Your task to perform on an android device: toggle show notifications on the lock screen Image 0: 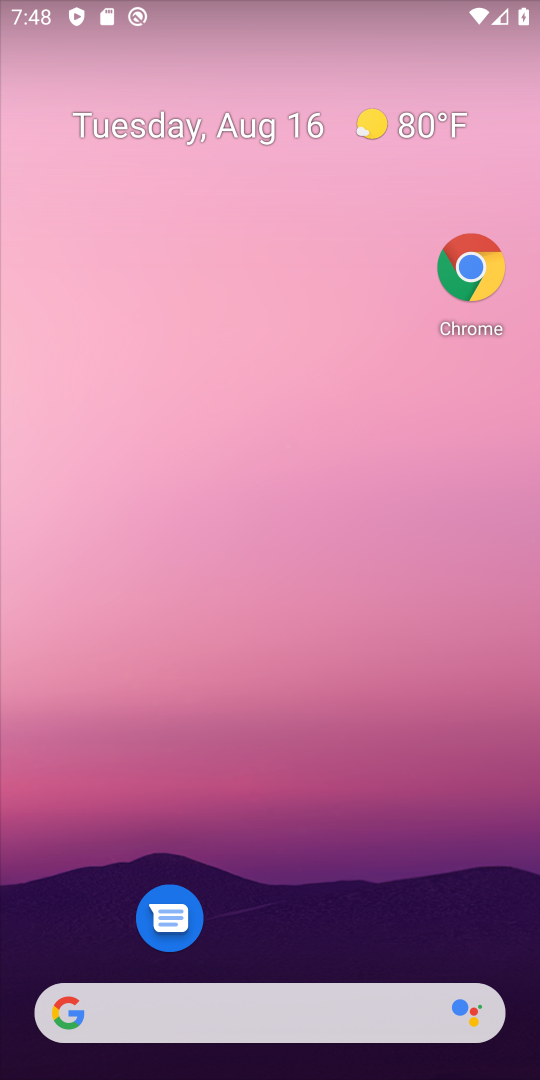
Step 0: drag from (334, 914) to (357, 125)
Your task to perform on an android device: toggle show notifications on the lock screen Image 1: 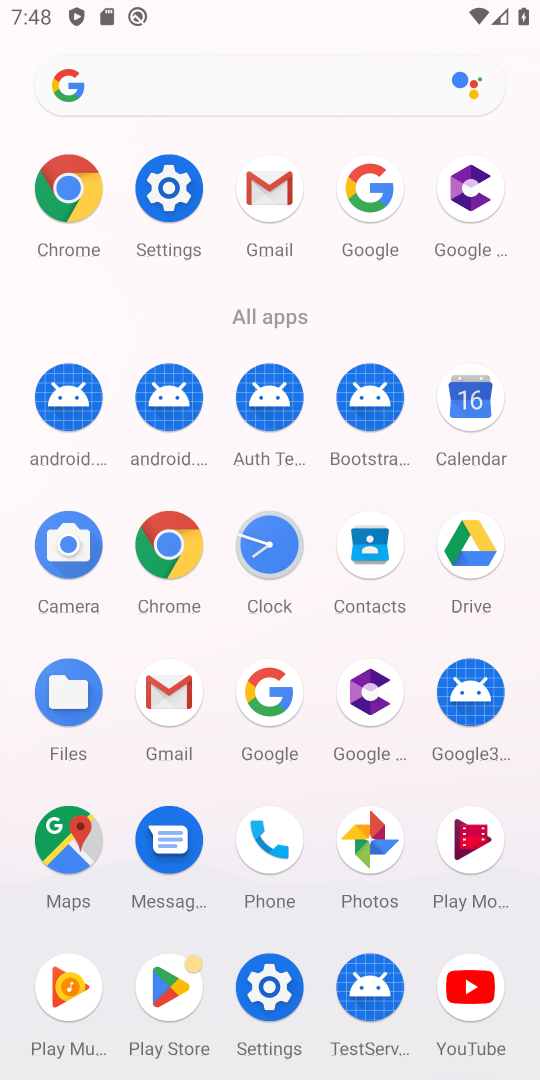
Step 1: click (169, 220)
Your task to perform on an android device: toggle show notifications on the lock screen Image 2: 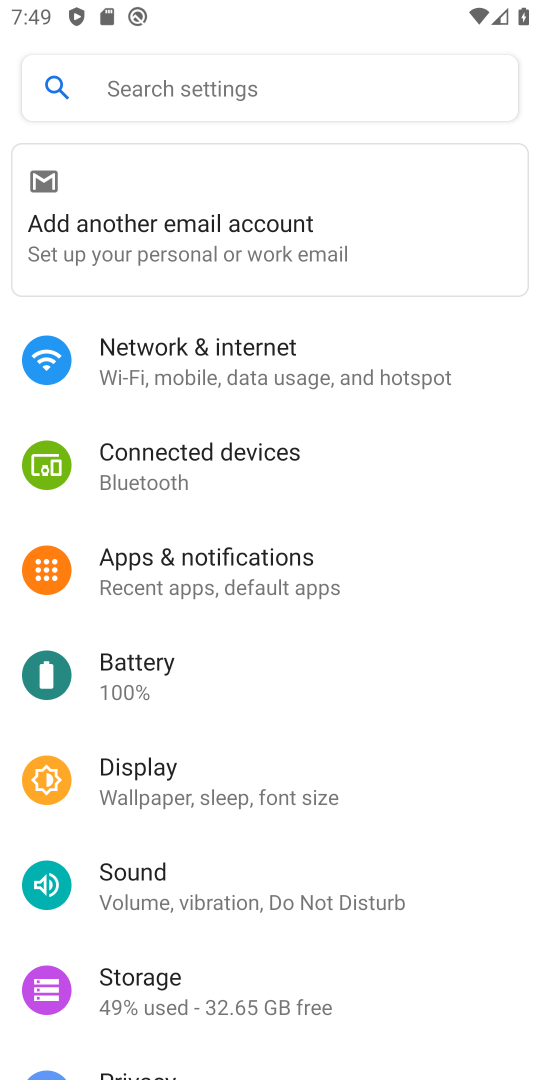
Step 2: click (278, 571)
Your task to perform on an android device: toggle show notifications on the lock screen Image 3: 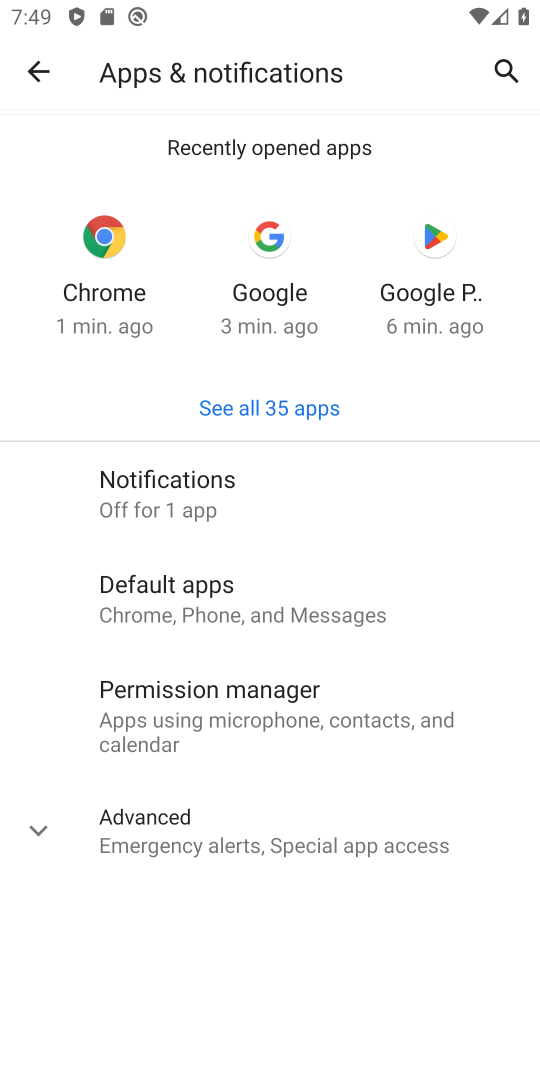
Step 3: click (187, 508)
Your task to perform on an android device: toggle show notifications on the lock screen Image 4: 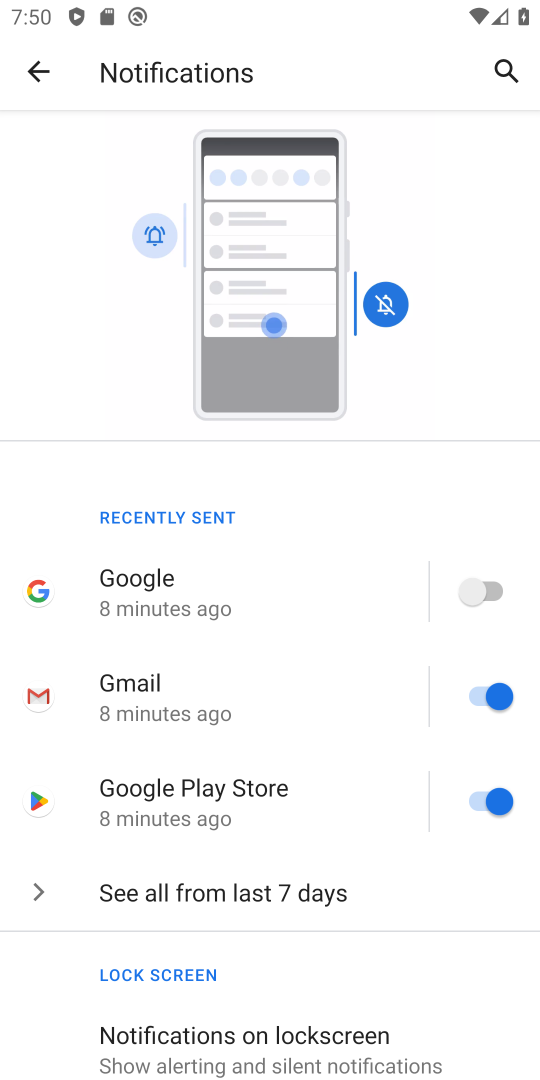
Step 4: click (276, 1043)
Your task to perform on an android device: toggle show notifications on the lock screen Image 5: 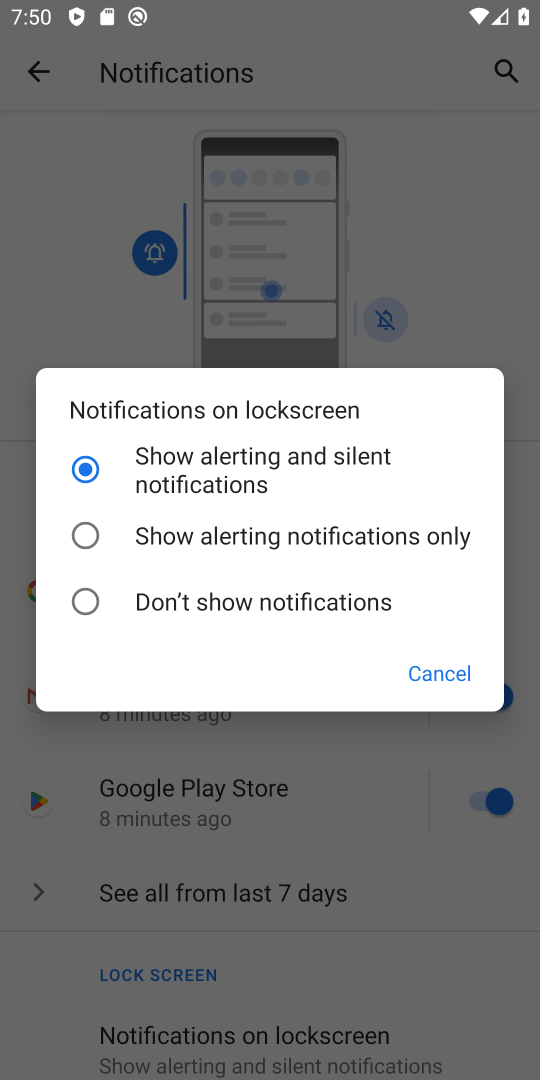
Step 5: click (116, 593)
Your task to perform on an android device: toggle show notifications on the lock screen Image 6: 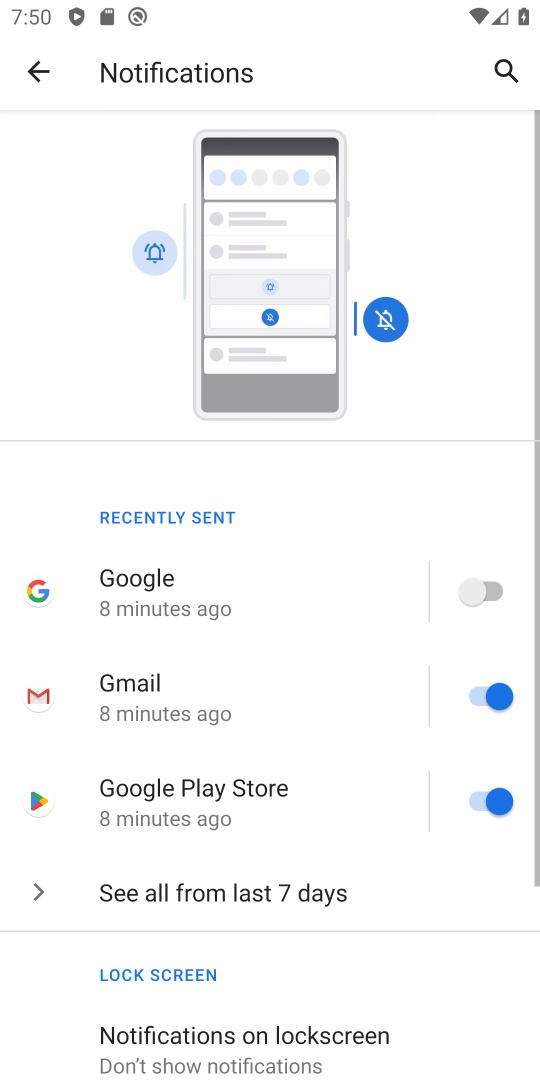
Step 6: task complete